Your task to perform on an android device: Find the nearest electronics store that's open now Image 0: 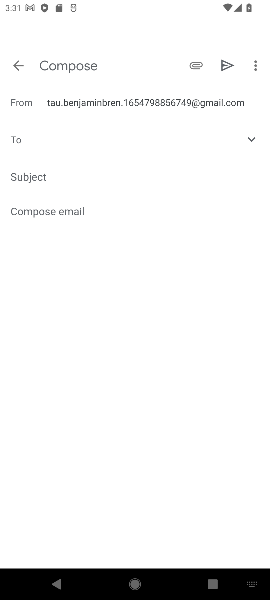
Step 0: press home button
Your task to perform on an android device: Find the nearest electronics store that's open now Image 1: 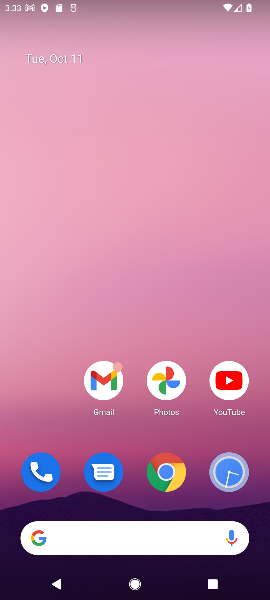
Step 1: drag from (127, 452) to (106, 128)
Your task to perform on an android device: Find the nearest electronics store that's open now Image 2: 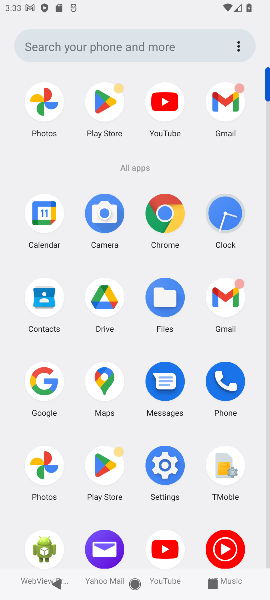
Step 2: click (104, 386)
Your task to perform on an android device: Find the nearest electronics store that's open now Image 3: 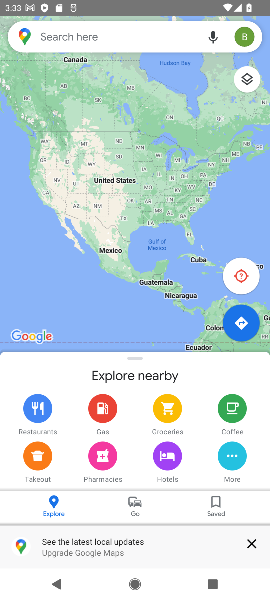
Step 3: click (85, 30)
Your task to perform on an android device: Find the nearest electronics store that's open now Image 4: 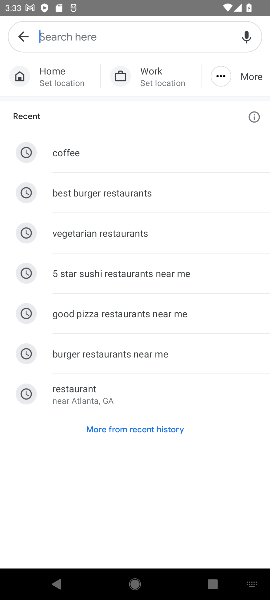
Step 4: type "Find the nearest electronics store that's open now"
Your task to perform on an android device: Find the nearest electronics store that's open now Image 5: 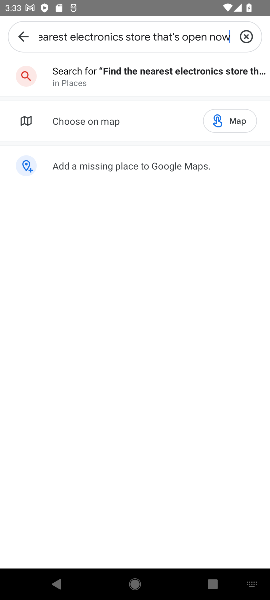
Step 5: click (182, 64)
Your task to perform on an android device: Find the nearest electronics store that's open now Image 6: 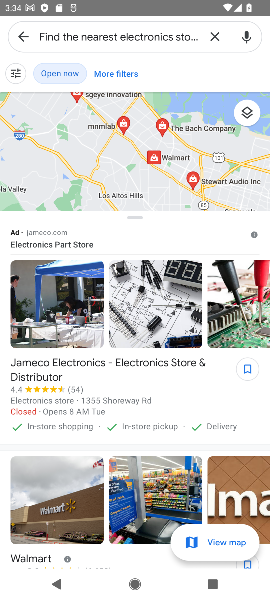
Step 6: task complete